Your task to perform on an android device: turn off sleep mode Image 0: 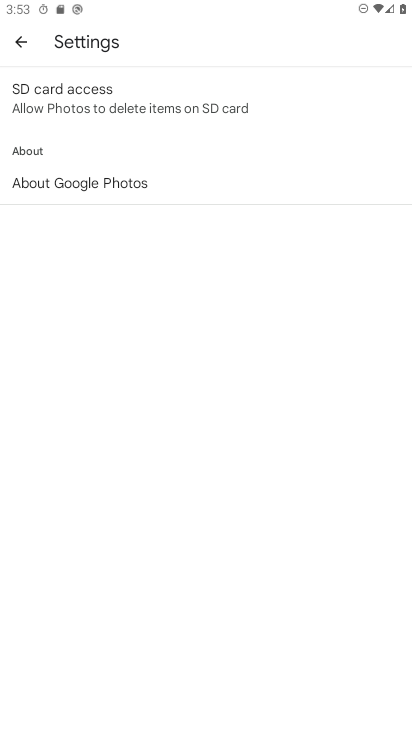
Step 0: press home button
Your task to perform on an android device: turn off sleep mode Image 1: 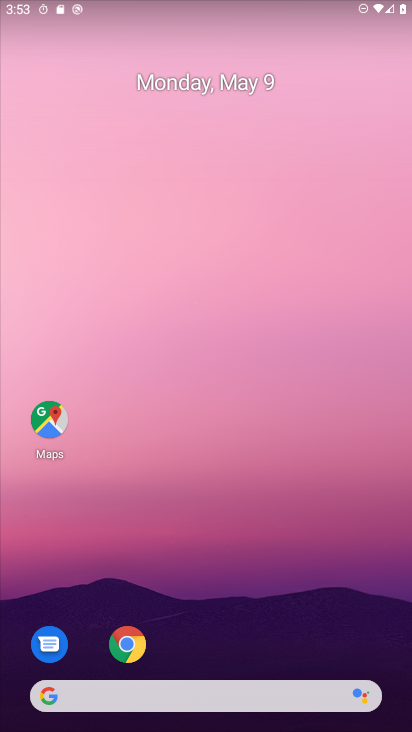
Step 1: drag from (210, 612) to (258, 157)
Your task to perform on an android device: turn off sleep mode Image 2: 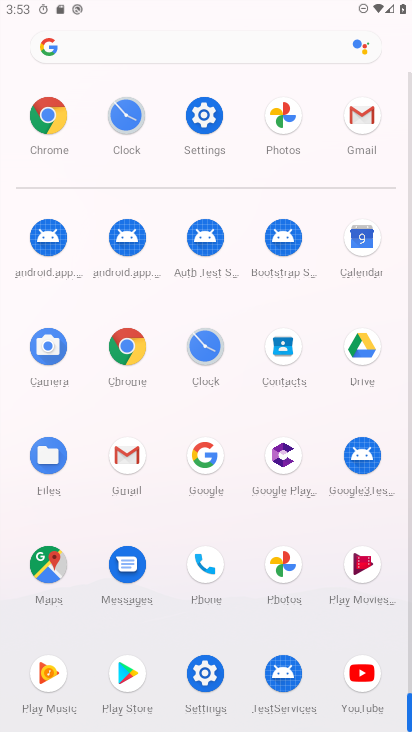
Step 2: click (228, 129)
Your task to perform on an android device: turn off sleep mode Image 3: 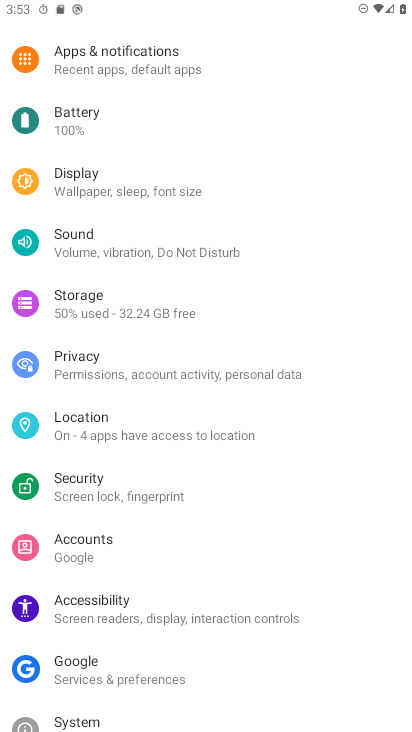
Step 3: task complete